Your task to perform on an android device: turn on showing notifications on the lock screen Image 0: 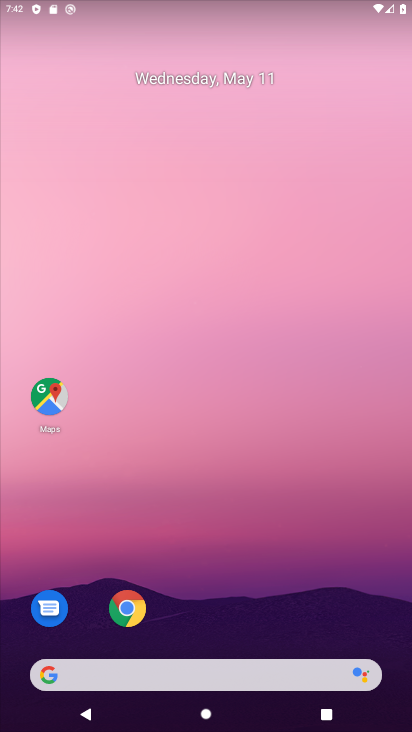
Step 0: drag from (252, 608) to (243, 98)
Your task to perform on an android device: turn on showing notifications on the lock screen Image 1: 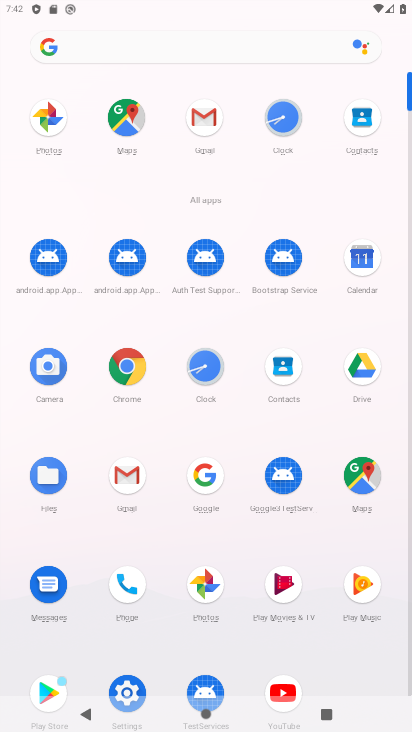
Step 1: click (131, 679)
Your task to perform on an android device: turn on showing notifications on the lock screen Image 2: 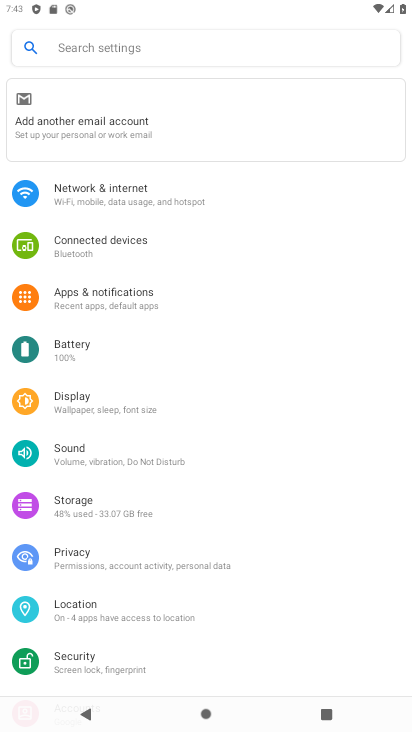
Step 2: click (94, 292)
Your task to perform on an android device: turn on showing notifications on the lock screen Image 3: 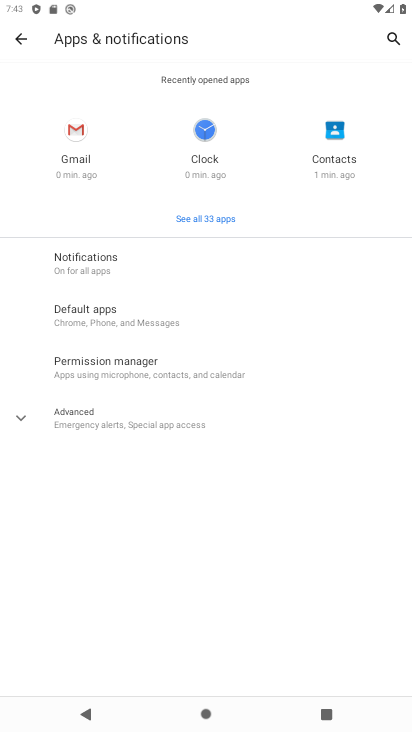
Step 3: click (120, 262)
Your task to perform on an android device: turn on showing notifications on the lock screen Image 4: 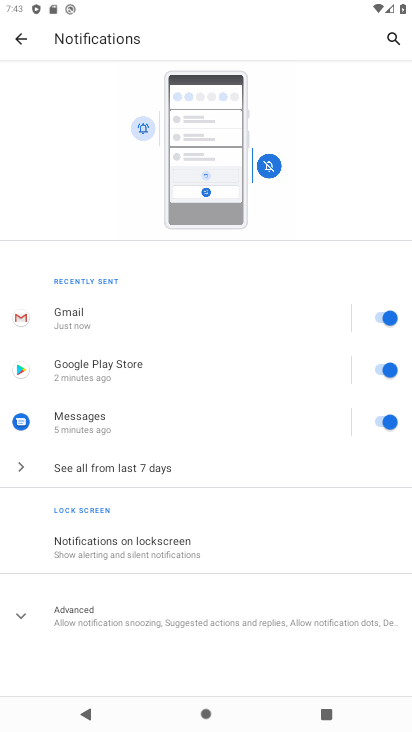
Step 4: click (194, 545)
Your task to perform on an android device: turn on showing notifications on the lock screen Image 5: 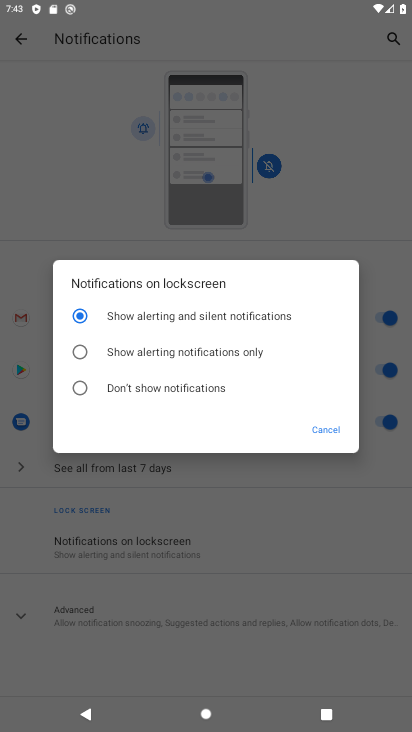
Step 5: task complete